Your task to perform on an android device: Open ESPN.com Image 0: 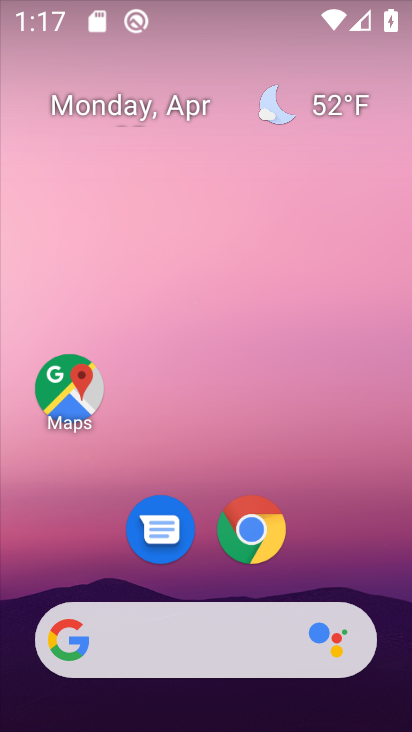
Step 0: drag from (383, 449) to (354, 212)
Your task to perform on an android device: Open ESPN.com Image 1: 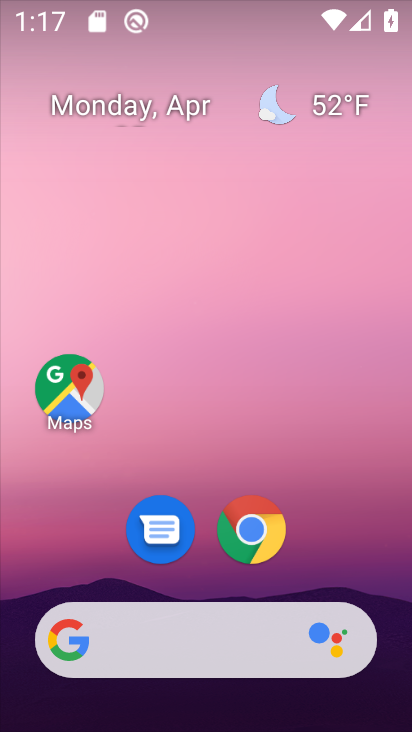
Step 1: drag from (384, 547) to (340, 199)
Your task to perform on an android device: Open ESPN.com Image 2: 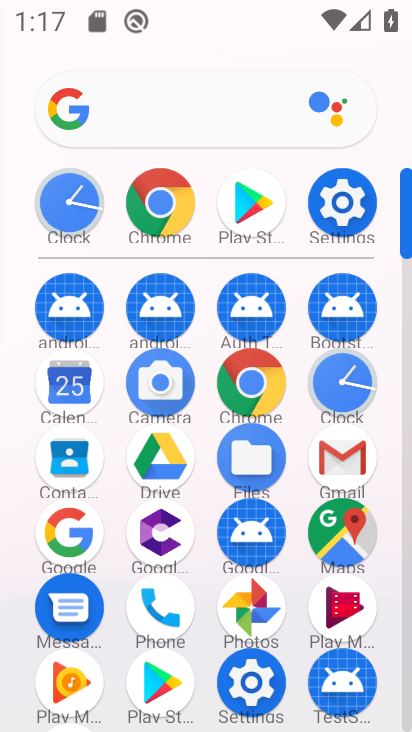
Step 2: click (261, 385)
Your task to perform on an android device: Open ESPN.com Image 3: 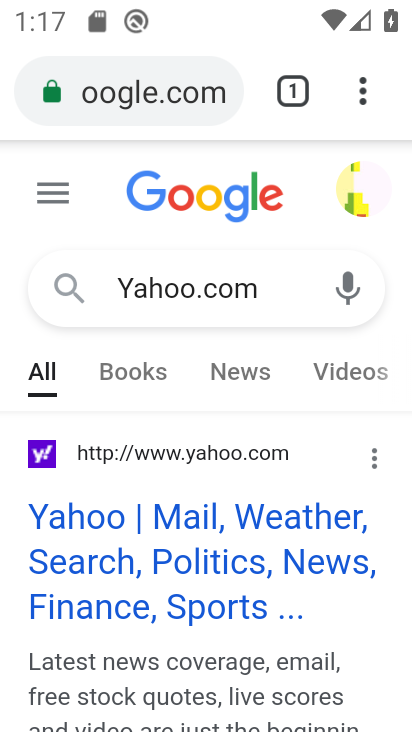
Step 3: click (231, 85)
Your task to perform on an android device: Open ESPN.com Image 4: 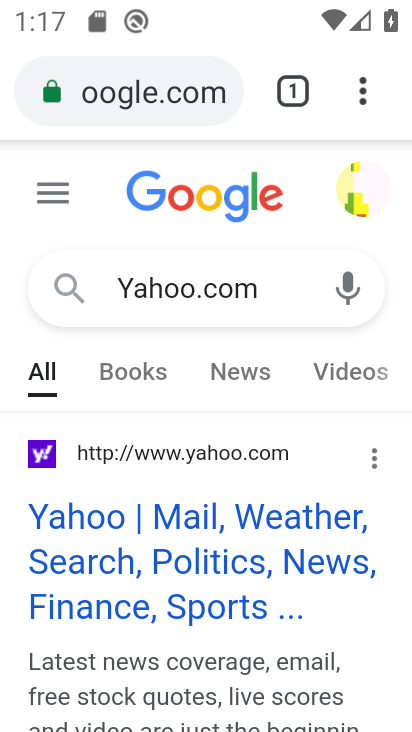
Step 4: click (231, 94)
Your task to perform on an android device: Open ESPN.com Image 5: 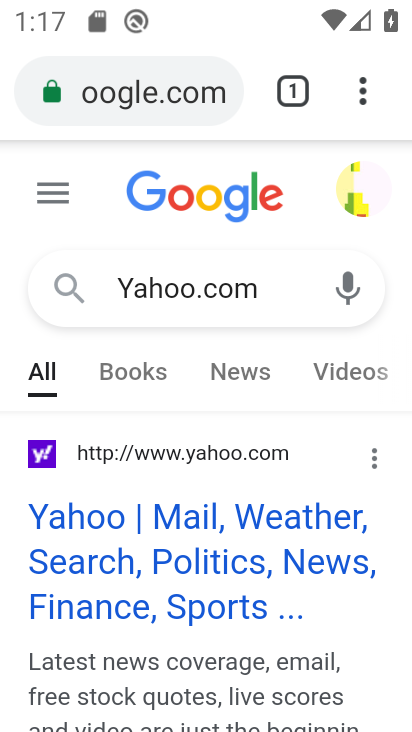
Step 5: click (231, 91)
Your task to perform on an android device: Open ESPN.com Image 6: 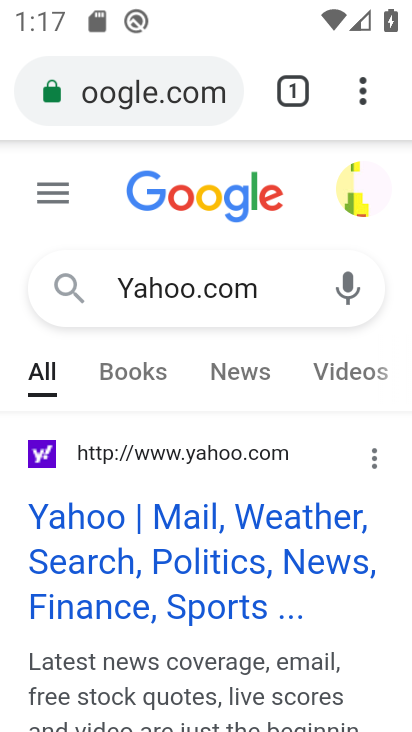
Step 6: click (223, 95)
Your task to perform on an android device: Open ESPN.com Image 7: 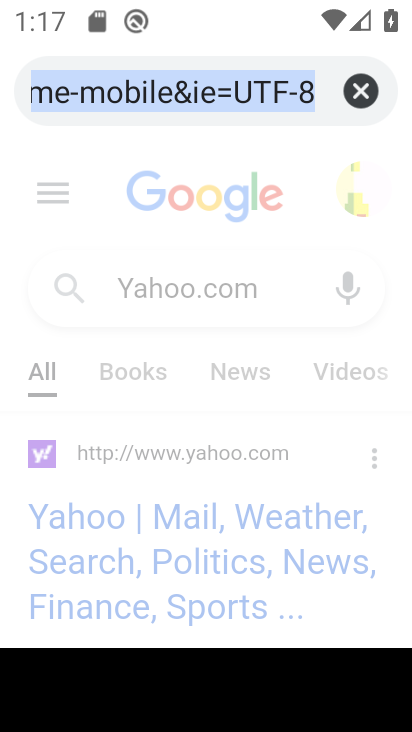
Step 7: click (361, 86)
Your task to perform on an android device: Open ESPN.com Image 8: 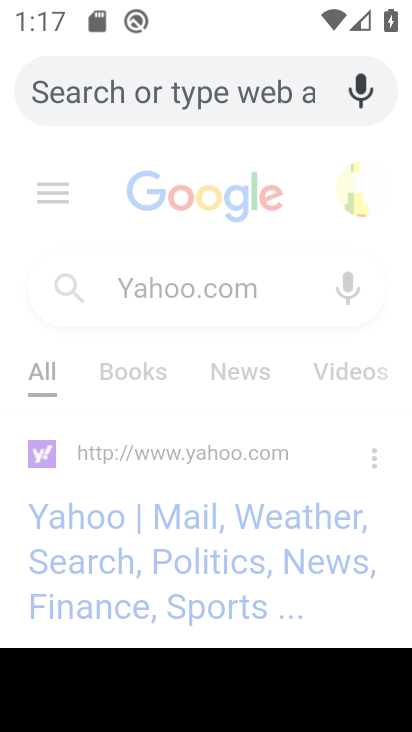
Step 8: type "ESPN.com"
Your task to perform on an android device: Open ESPN.com Image 9: 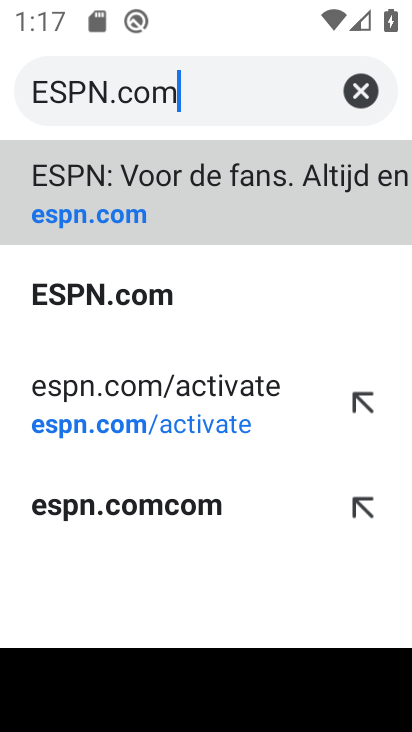
Step 9: click (105, 283)
Your task to perform on an android device: Open ESPN.com Image 10: 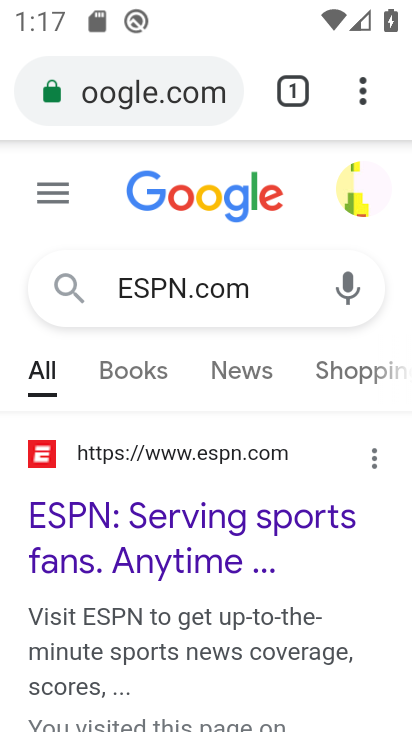
Step 10: task complete